Your task to perform on an android device: toggle translation in the chrome app Image 0: 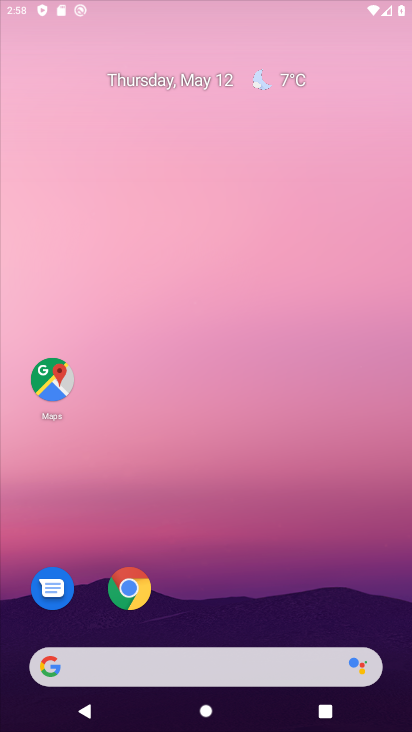
Step 0: drag from (218, 568) to (277, 3)
Your task to perform on an android device: toggle translation in the chrome app Image 1: 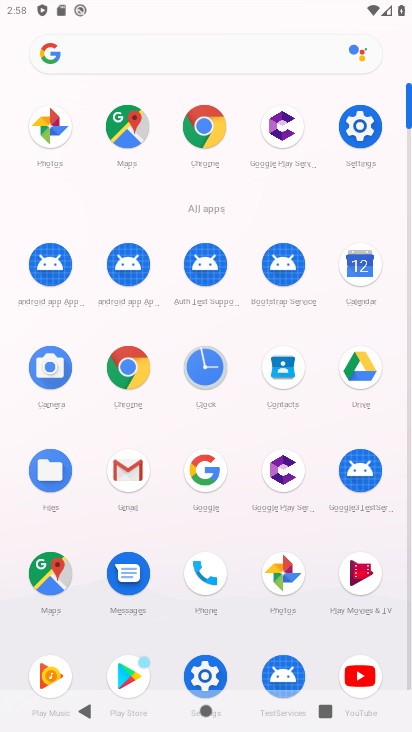
Step 1: click (202, 144)
Your task to perform on an android device: toggle translation in the chrome app Image 2: 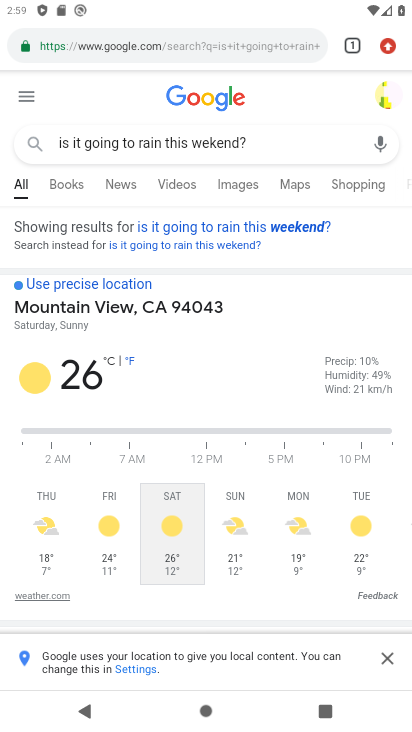
Step 2: click (381, 48)
Your task to perform on an android device: toggle translation in the chrome app Image 3: 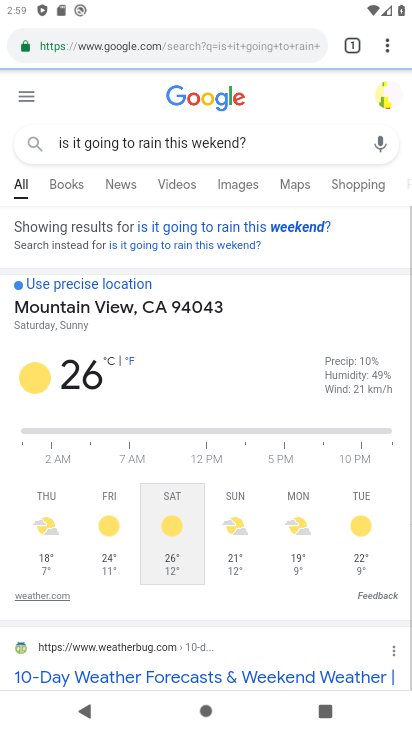
Step 3: drag from (386, 51) to (250, 542)
Your task to perform on an android device: toggle translation in the chrome app Image 4: 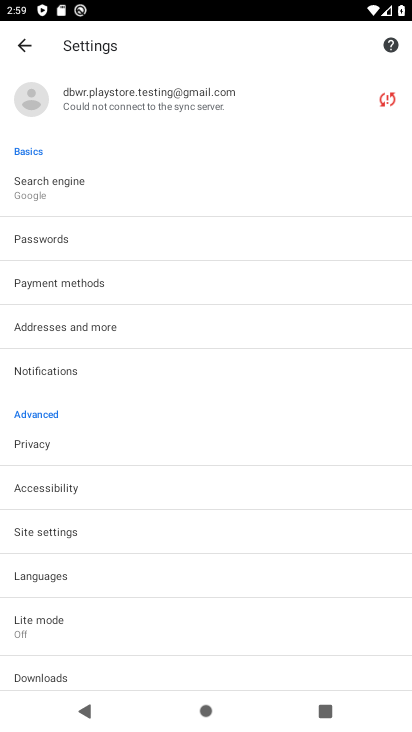
Step 4: click (92, 584)
Your task to perform on an android device: toggle translation in the chrome app Image 5: 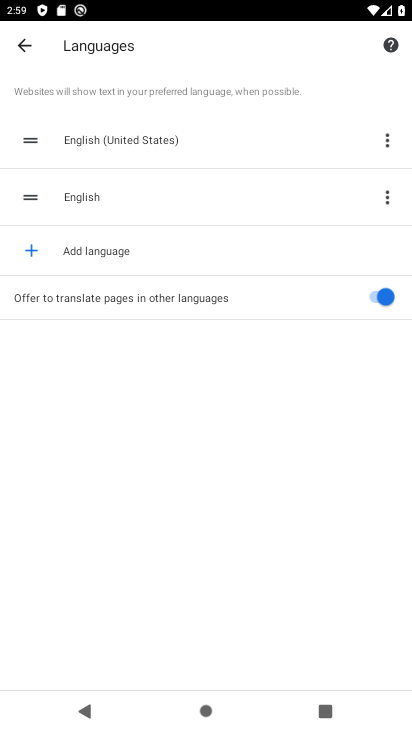
Step 5: click (369, 297)
Your task to perform on an android device: toggle translation in the chrome app Image 6: 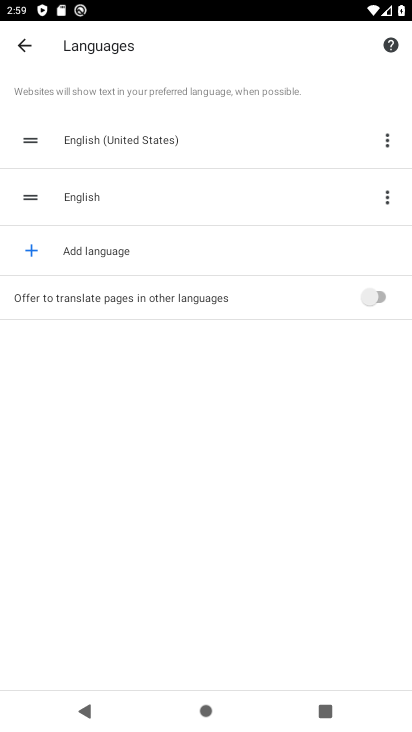
Step 6: task complete